Your task to perform on an android device: Search for pizza restaurants on Maps Image 0: 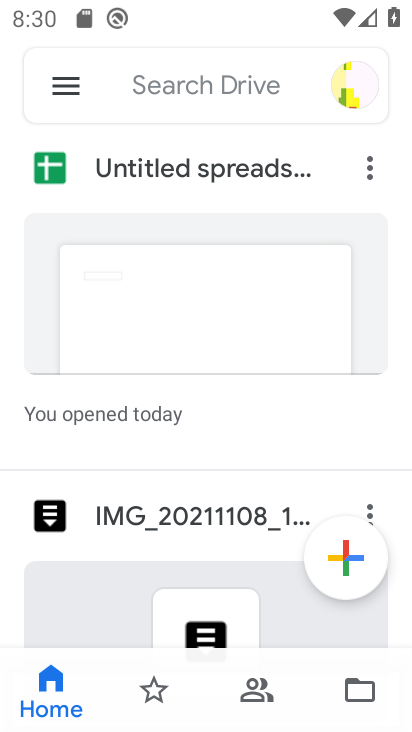
Step 0: press home button
Your task to perform on an android device: Search for pizza restaurants on Maps Image 1: 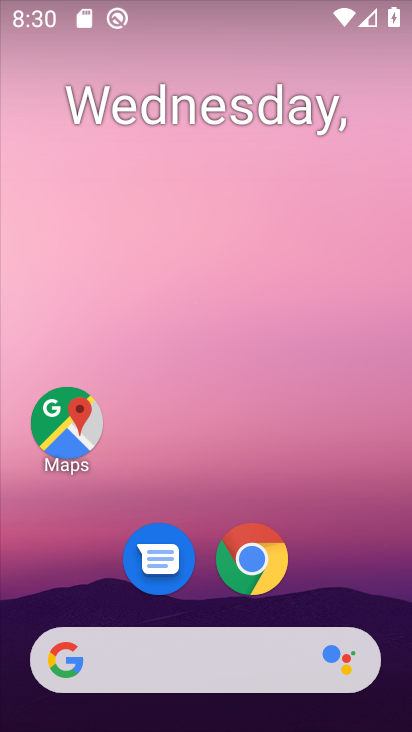
Step 1: drag from (365, 536) to (367, 84)
Your task to perform on an android device: Search for pizza restaurants on Maps Image 2: 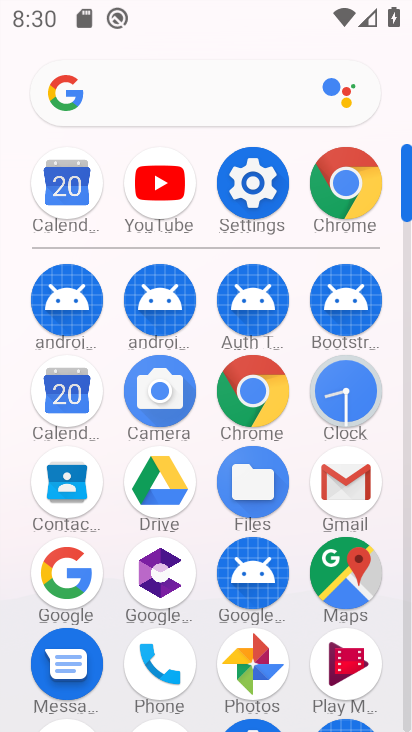
Step 2: click (341, 578)
Your task to perform on an android device: Search for pizza restaurants on Maps Image 3: 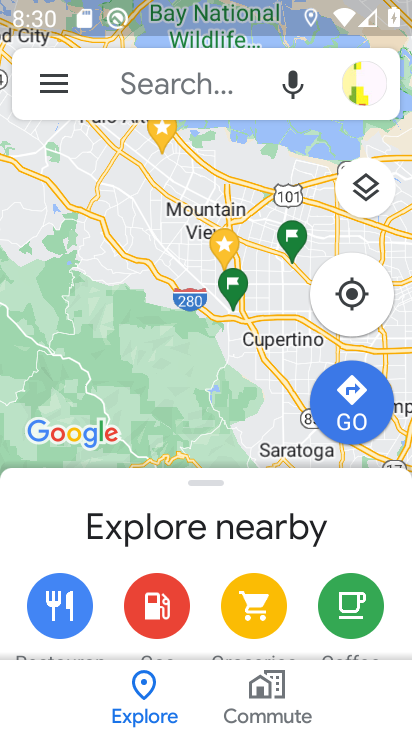
Step 3: click (174, 77)
Your task to perform on an android device: Search for pizza restaurants on Maps Image 4: 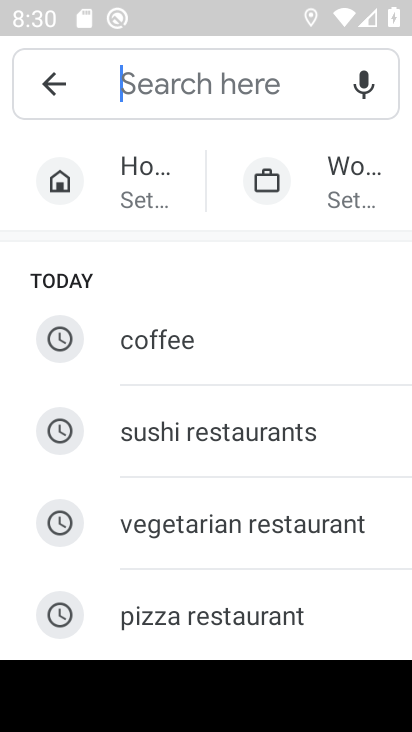
Step 4: click (238, 607)
Your task to perform on an android device: Search for pizza restaurants on Maps Image 5: 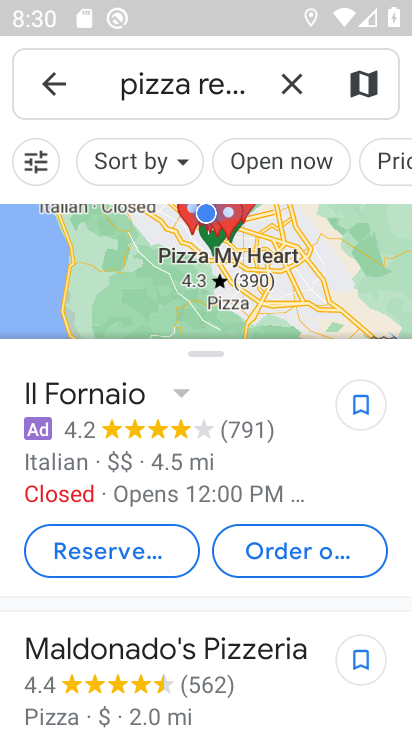
Step 5: task complete